Your task to perform on an android device: change notification settings in the gmail app Image 0: 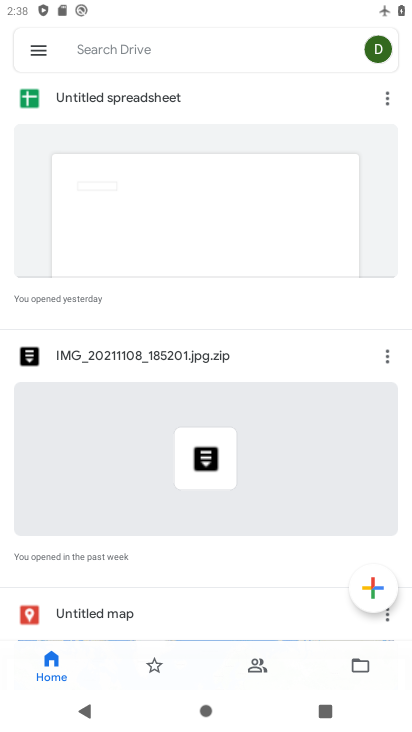
Step 0: press home button
Your task to perform on an android device: change notification settings in the gmail app Image 1: 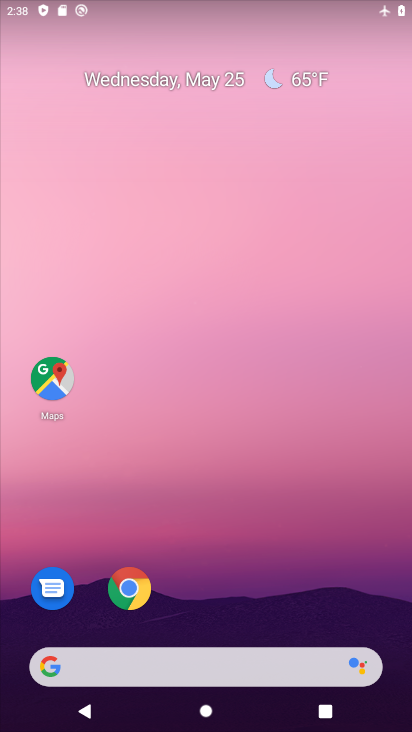
Step 1: drag from (183, 601) to (243, 281)
Your task to perform on an android device: change notification settings in the gmail app Image 2: 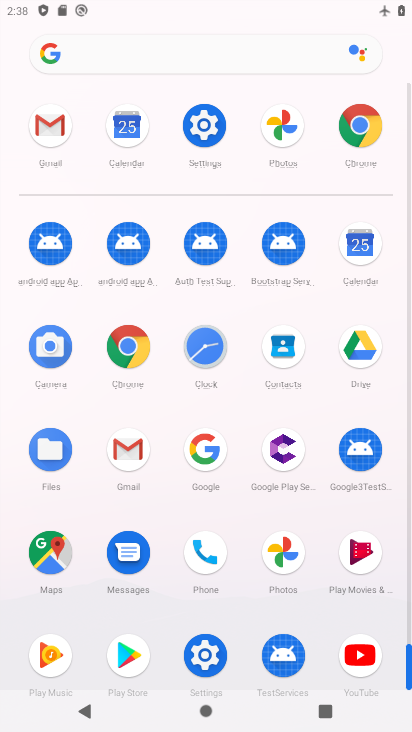
Step 2: click (132, 456)
Your task to perform on an android device: change notification settings in the gmail app Image 3: 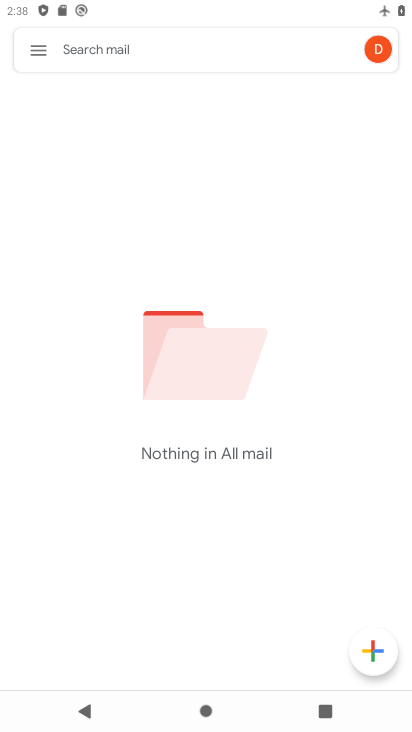
Step 3: click (34, 47)
Your task to perform on an android device: change notification settings in the gmail app Image 4: 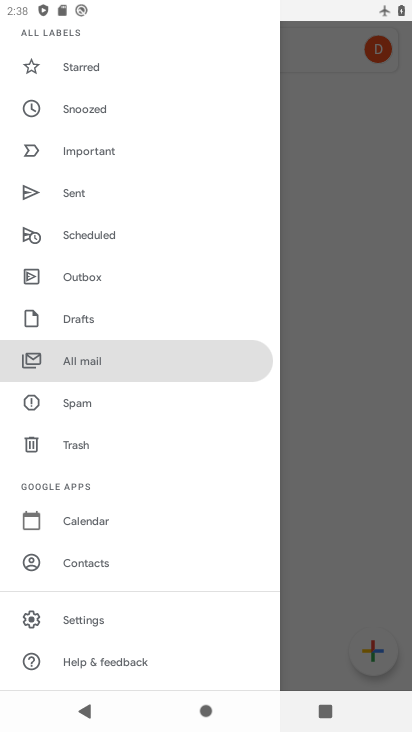
Step 4: click (109, 617)
Your task to perform on an android device: change notification settings in the gmail app Image 5: 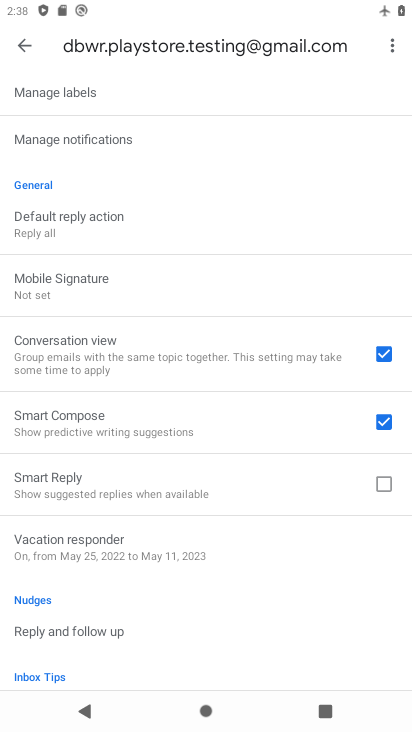
Step 5: click (102, 141)
Your task to perform on an android device: change notification settings in the gmail app Image 6: 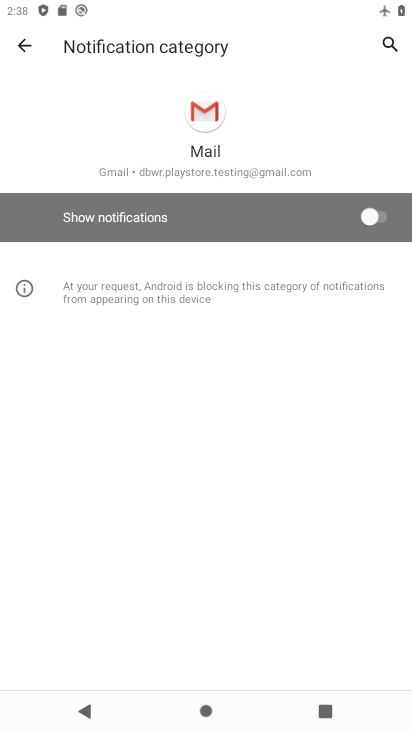
Step 6: click (374, 212)
Your task to perform on an android device: change notification settings in the gmail app Image 7: 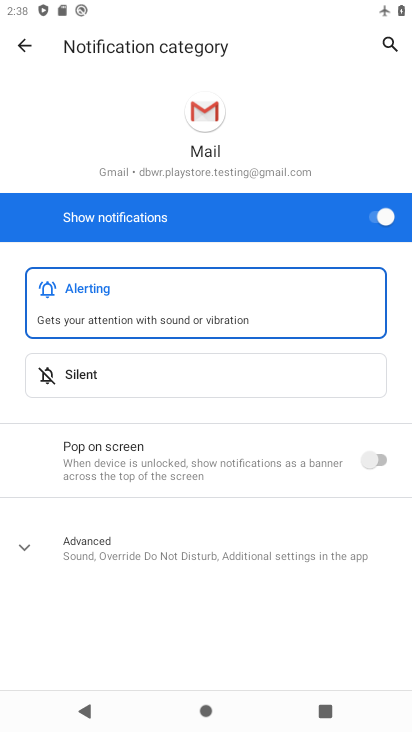
Step 7: task complete